Your task to perform on an android device: Show me popular games on the Play Store Image 0: 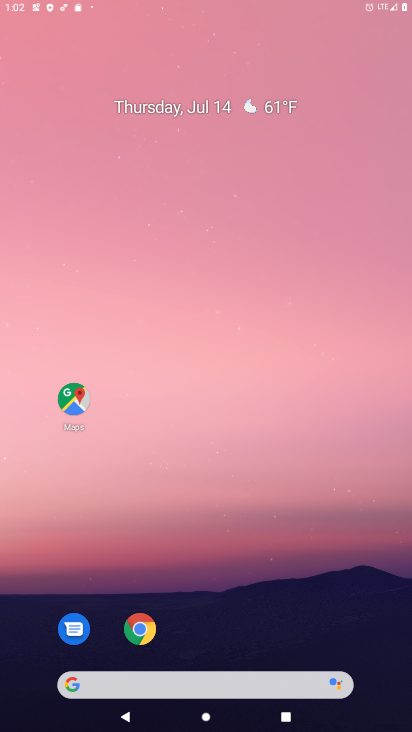
Step 0: drag from (217, 303) to (194, 101)
Your task to perform on an android device: Show me popular games on the Play Store Image 1: 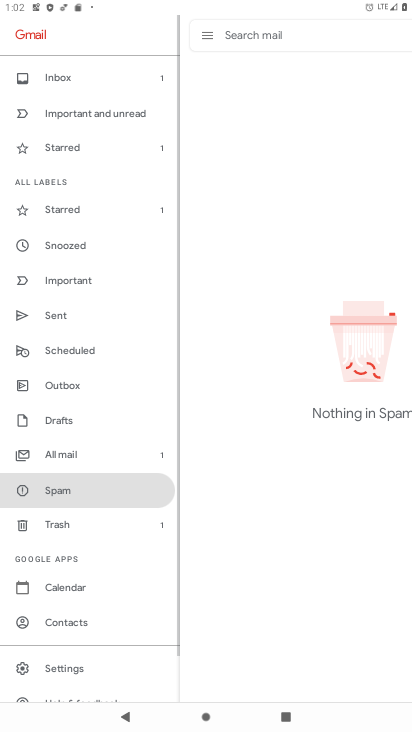
Step 1: press home button
Your task to perform on an android device: Show me popular games on the Play Store Image 2: 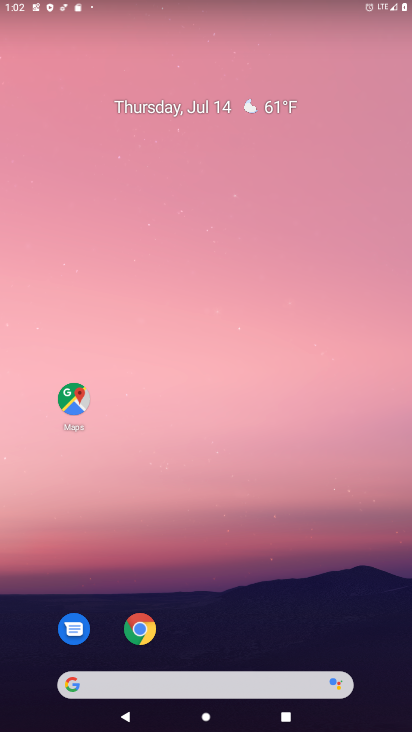
Step 2: drag from (232, 601) to (218, 145)
Your task to perform on an android device: Show me popular games on the Play Store Image 3: 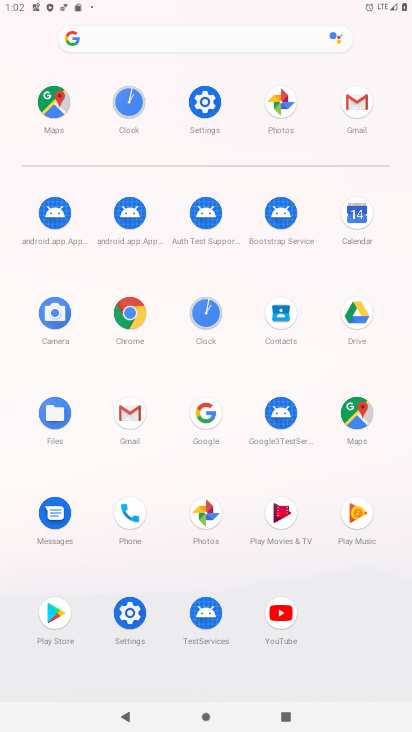
Step 3: click (55, 608)
Your task to perform on an android device: Show me popular games on the Play Store Image 4: 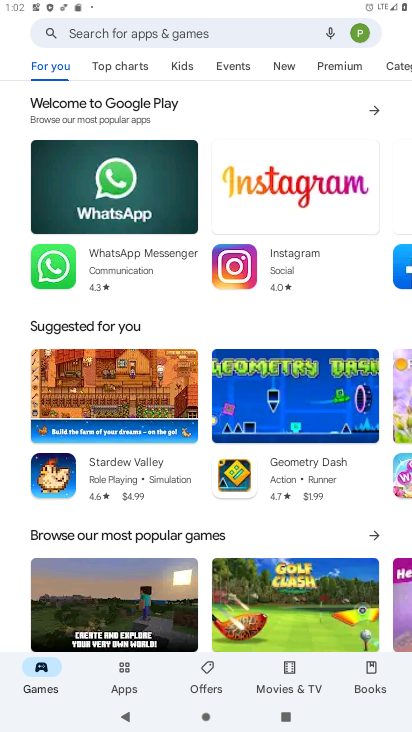
Step 4: task complete